Your task to perform on an android device: Open internet settings Image 0: 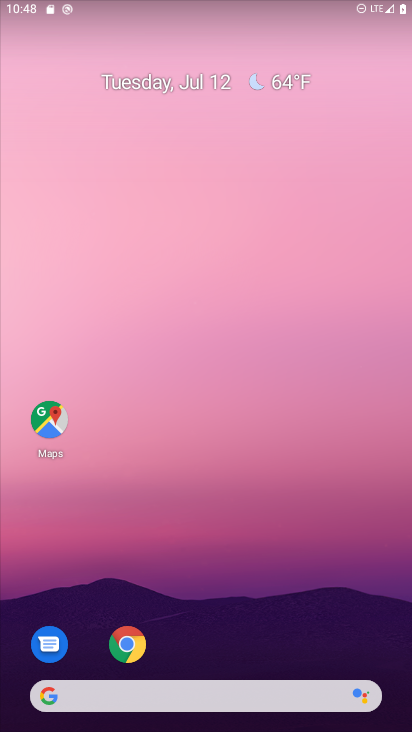
Step 0: drag from (330, 660) to (289, 186)
Your task to perform on an android device: Open internet settings Image 1: 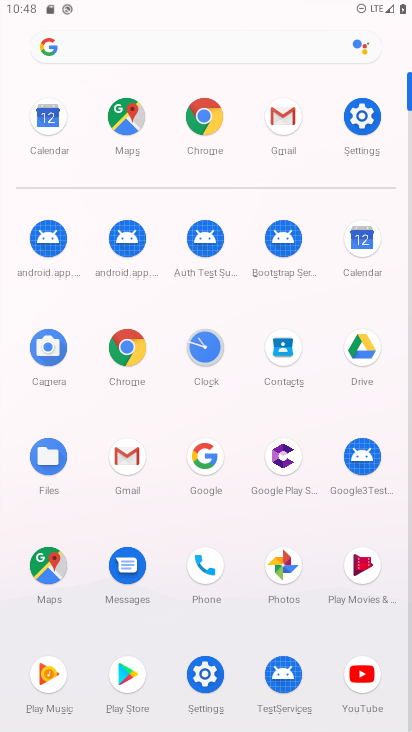
Step 1: click (348, 135)
Your task to perform on an android device: Open internet settings Image 2: 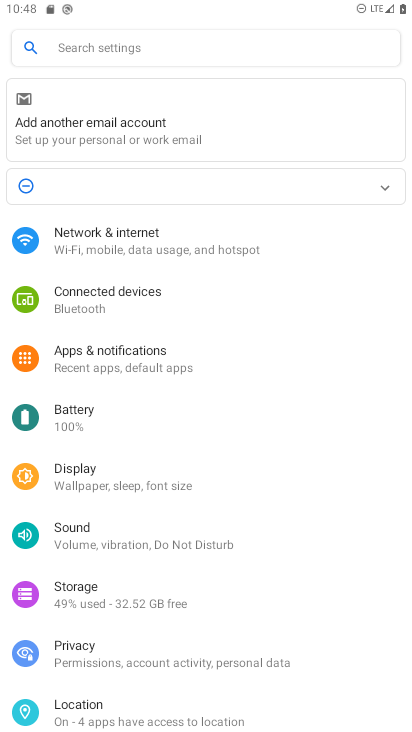
Step 2: click (254, 229)
Your task to perform on an android device: Open internet settings Image 3: 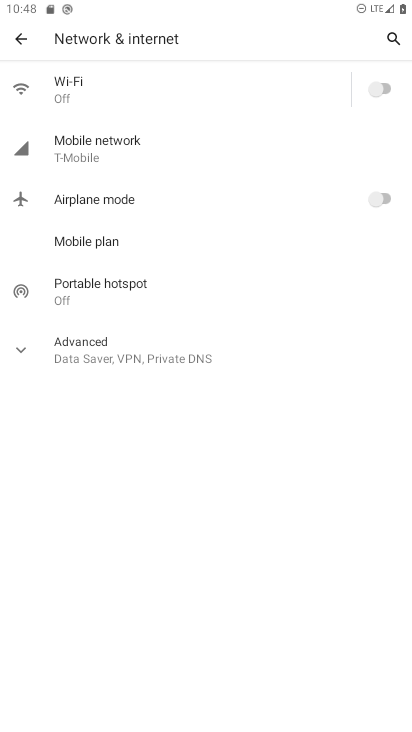
Step 3: task complete